Your task to perform on an android device: make emails show in primary in the gmail app Image 0: 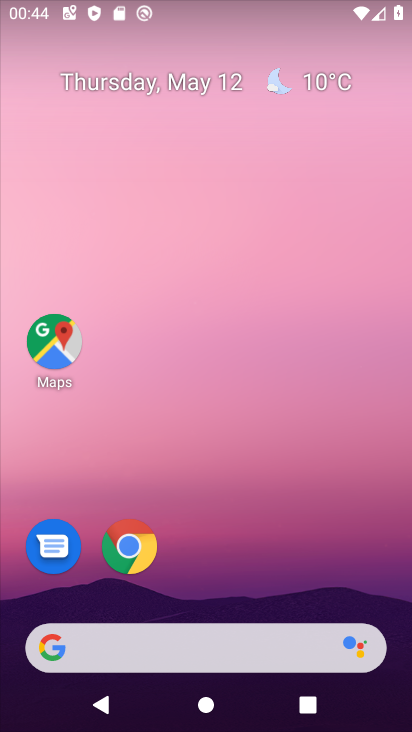
Step 0: drag from (138, 602) to (173, 231)
Your task to perform on an android device: make emails show in primary in the gmail app Image 1: 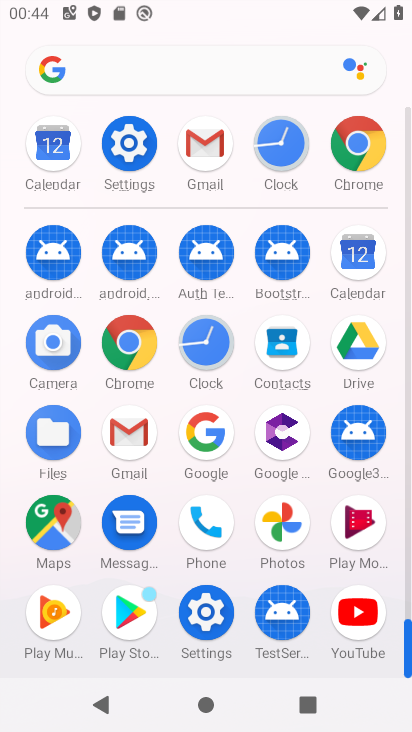
Step 1: click (197, 155)
Your task to perform on an android device: make emails show in primary in the gmail app Image 2: 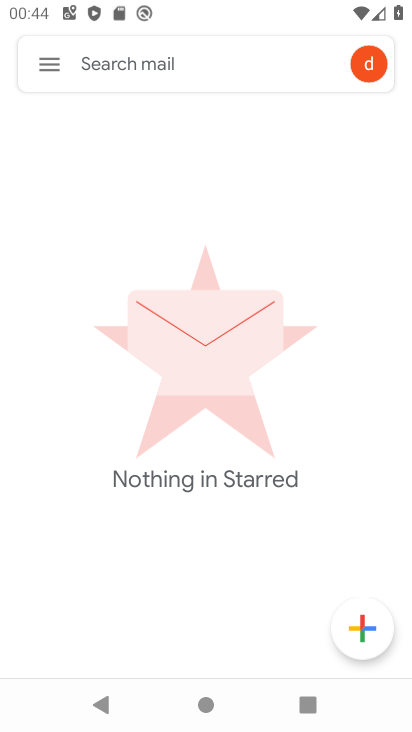
Step 2: press home button
Your task to perform on an android device: make emails show in primary in the gmail app Image 3: 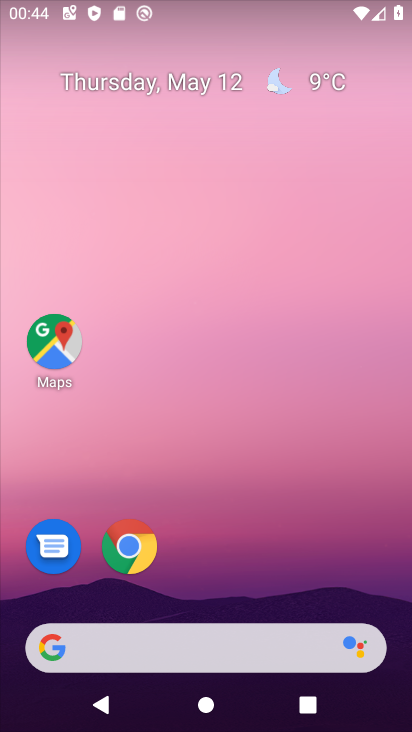
Step 3: drag from (135, 592) to (110, 216)
Your task to perform on an android device: make emails show in primary in the gmail app Image 4: 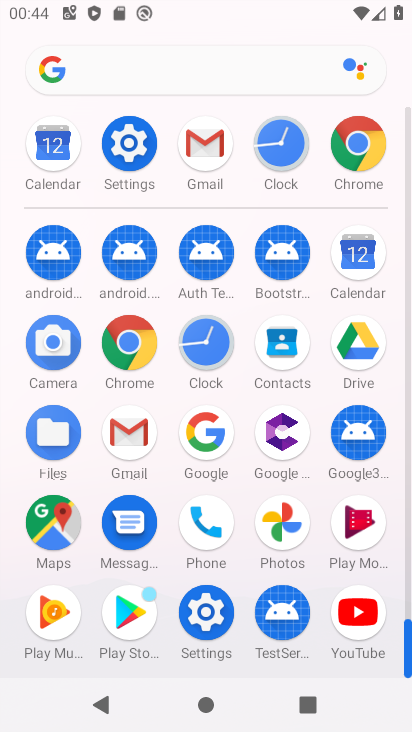
Step 4: click (204, 145)
Your task to perform on an android device: make emails show in primary in the gmail app Image 5: 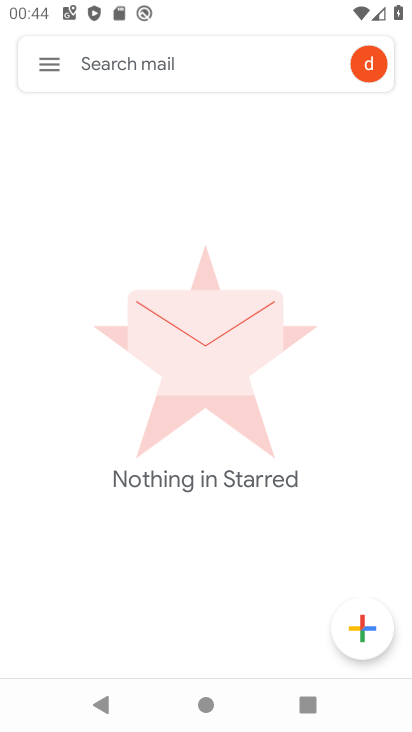
Step 5: click (57, 68)
Your task to perform on an android device: make emails show in primary in the gmail app Image 6: 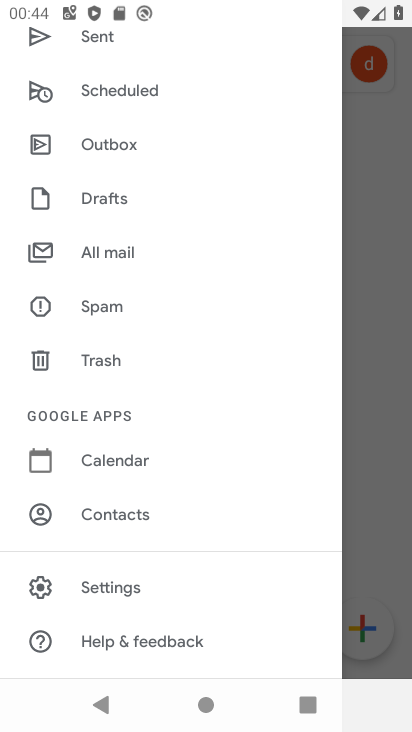
Step 6: click (89, 588)
Your task to perform on an android device: make emails show in primary in the gmail app Image 7: 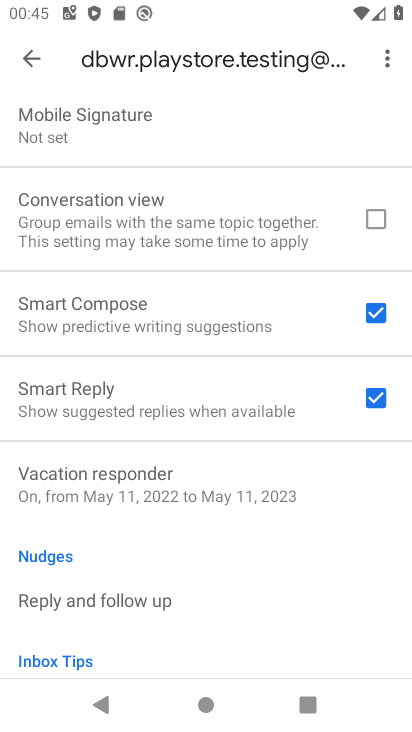
Step 7: drag from (158, 175) to (174, 578)
Your task to perform on an android device: make emails show in primary in the gmail app Image 8: 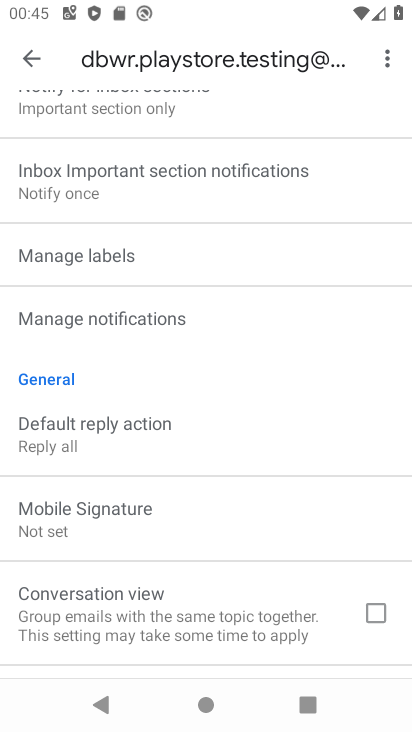
Step 8: drag from (199, 214) to (204, 499)
Your task to perform on an android device: make emails show in primary in the gmail app Image 9: 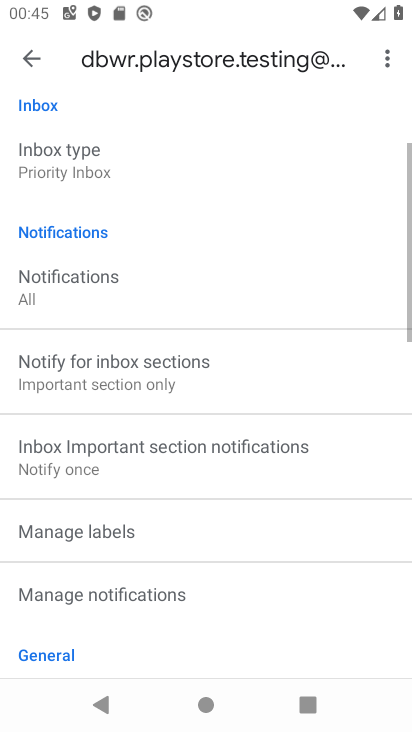
Step 9: click (80, 160)
Your task to perform on an android device: make emails show in primary in the gmail app Image 10: 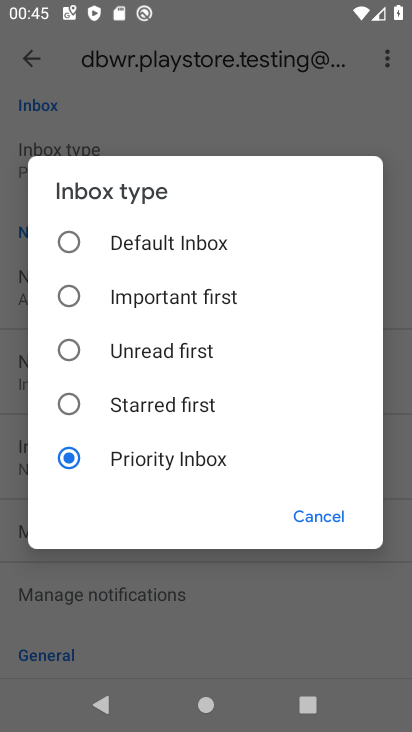
Step 10: click (131, 248)
Your task to perform on an android device: make emails show in primary in the gmail app Image 11: 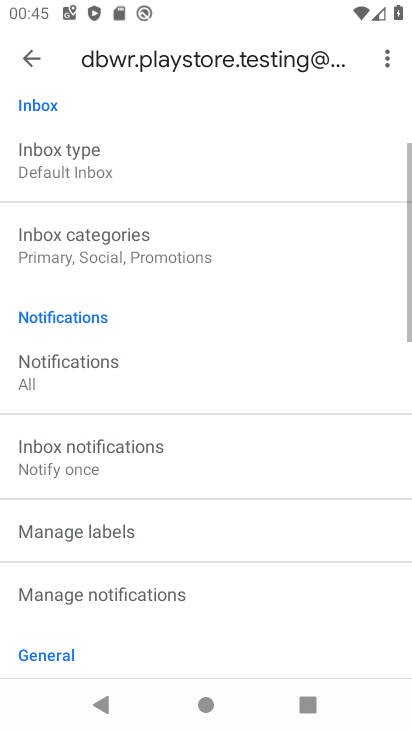
Step 11: click (35, 60)
Your task to perform on an android device: make emails show in primary in the gmail app Image 12: 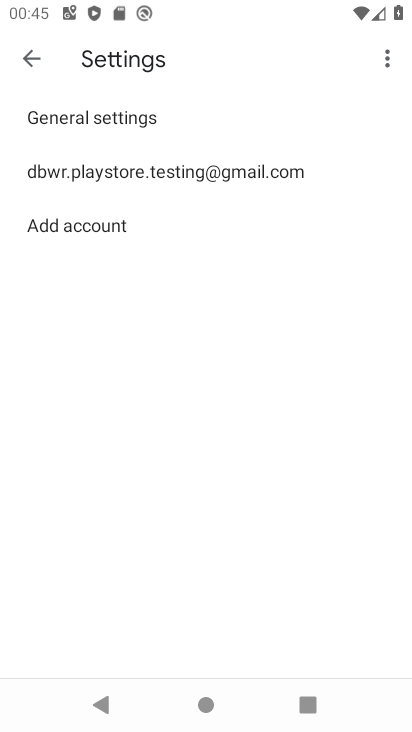
Step 12: click (35, 61)
Your task to perform on an android device: make emails show in primary in the gmail app Image 13: 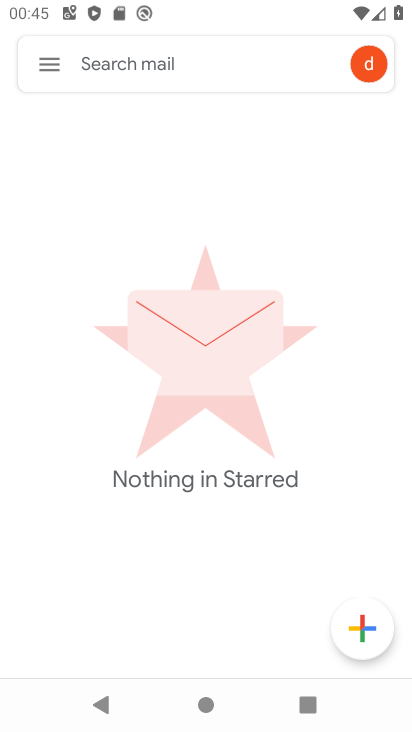
Step 13: click (41, 66)
Your task to perform on an android device: make emails show in primary in the gmail app Image 14: 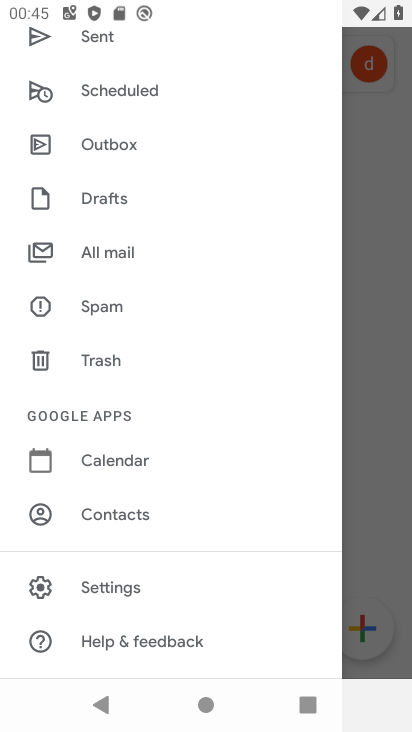
Step 14: drag from (164, 135) to (186, 571)
Your task to perform on an android device: make emails show in primary in the gmail app Image 15: 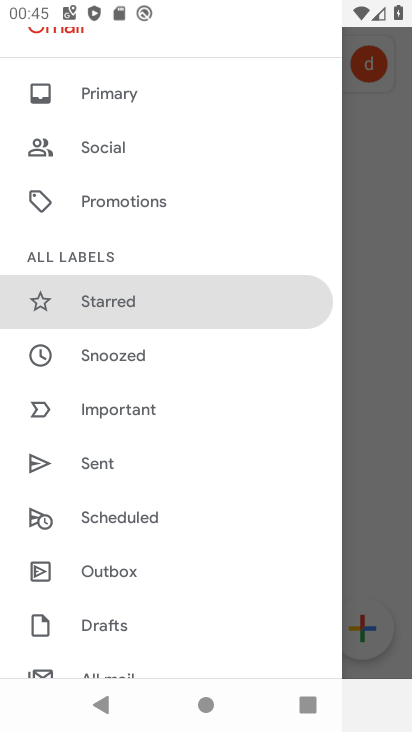
Step 15: click (122, 98)
Your task to perform on an android device: make emails show in primary in the gmail app Image 16: 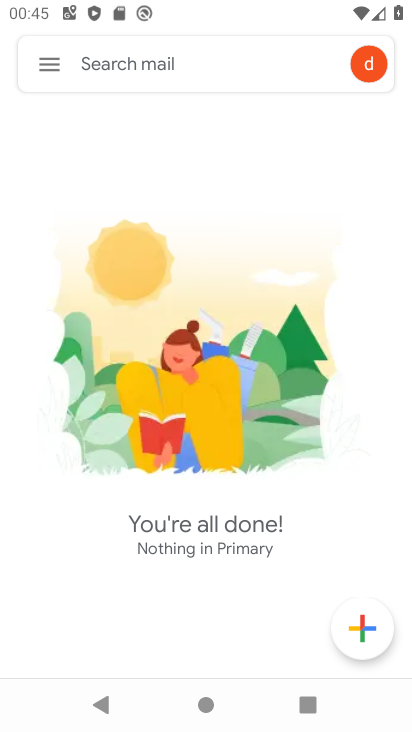
Step 16: task complete